Your task to perform on an android device: What's the weather going to be tomorrow? Image 0: 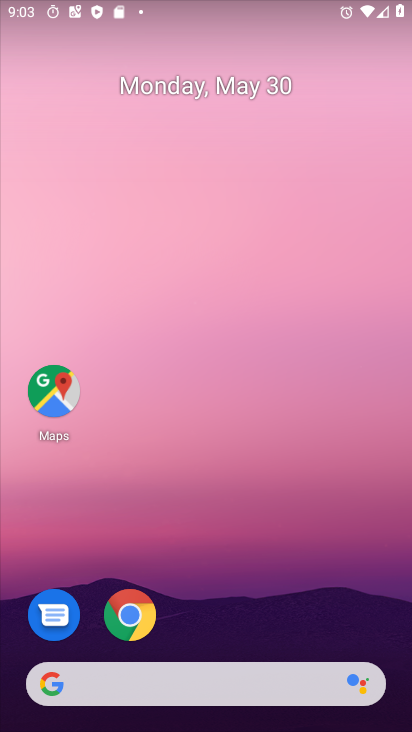
Step 0: drag from (321, 561) to (282, 24)
Your task to perform on an android device: What's the weather going to be tomorrow? Image 1: 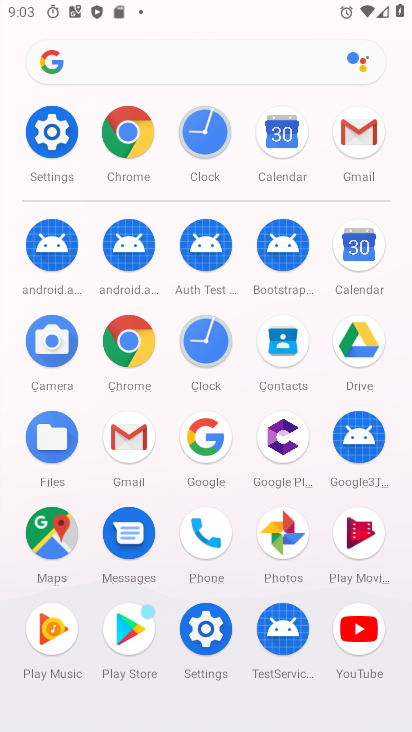
Step 1: press home button
Your task to perform on an android device: What's the weather going to be tomorrow? Image 2: 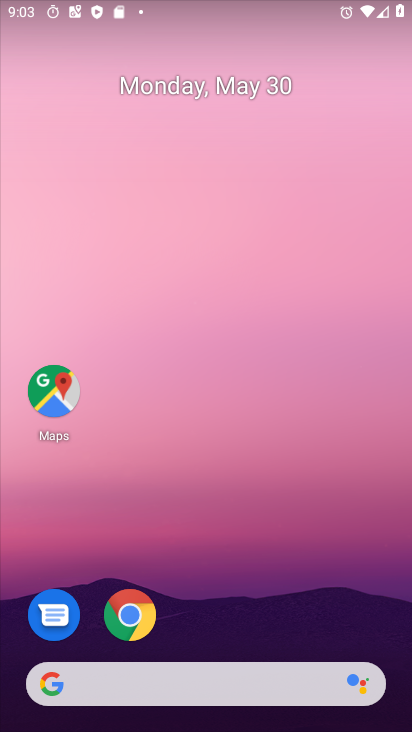
Step 2: drag from (347, 519) to (348, 1)
Your task to perform on an android device: What's the weather going to be tomorrow? Image 3: 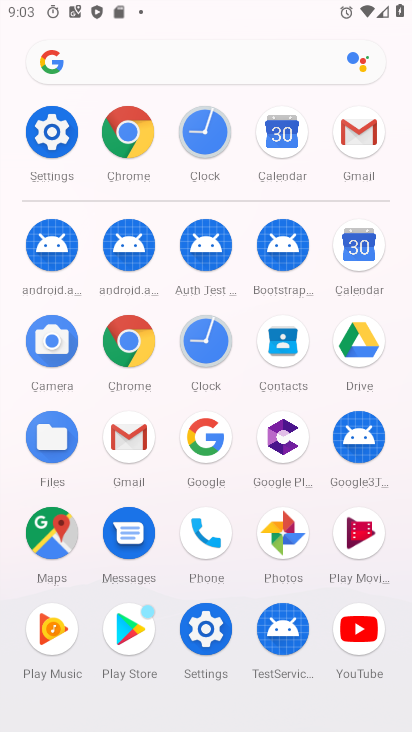
Step 3: click (45, 64)
Your task to perform on an android device: What's the weather going to be tomorrow? Image 4: 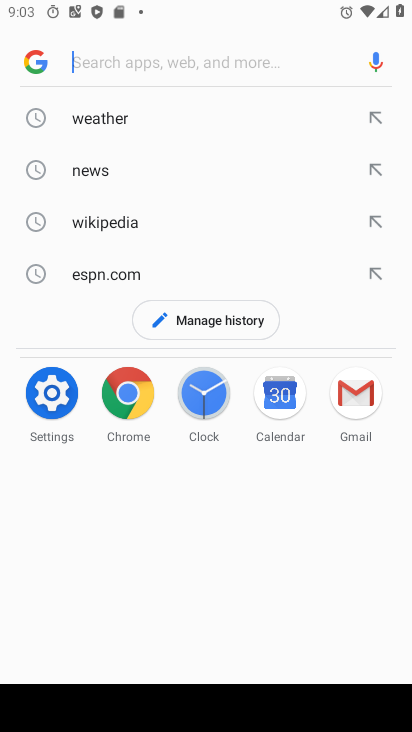
Step 4: click (45, 64)
Your task to perform on an android device: What's the weather going to be tomorrow? Image 5: 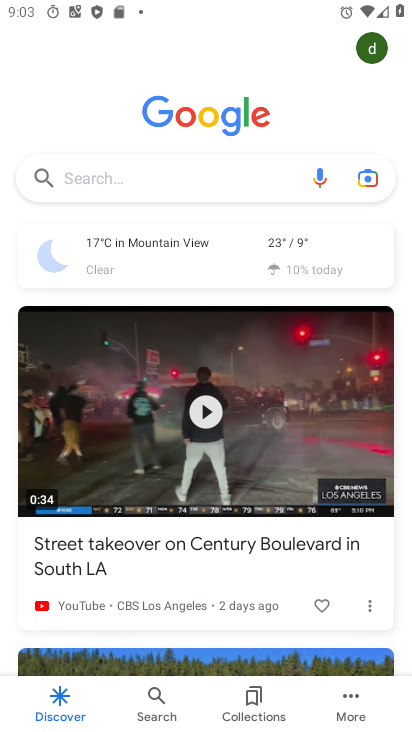
Step 5: click (170, 258)
Your task to perform on an android device: What's the weather going to be tomorrow? Image 6: 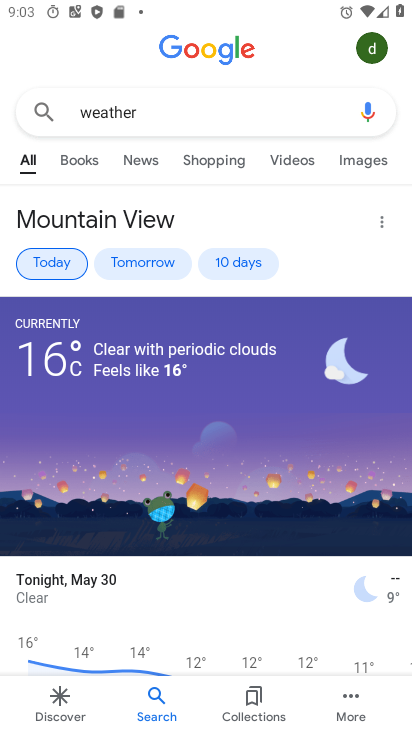
Step 6: click (169, 257)
Your task to perform on an android device: What's the weather going to be tomorrow? Image 7: 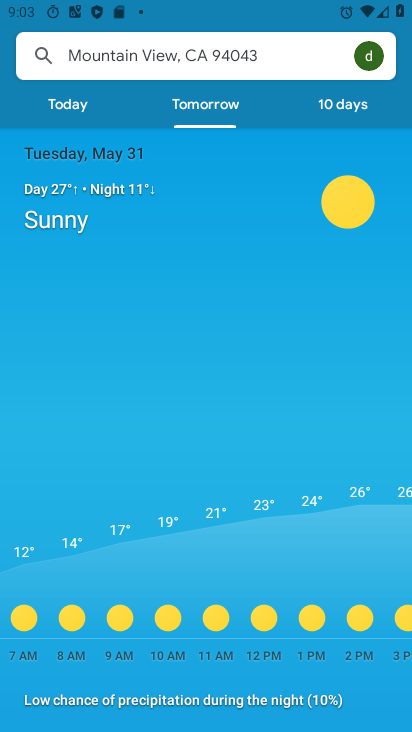
Step 7: task complete